Your task to perform on an android device: add a contact Image 0: 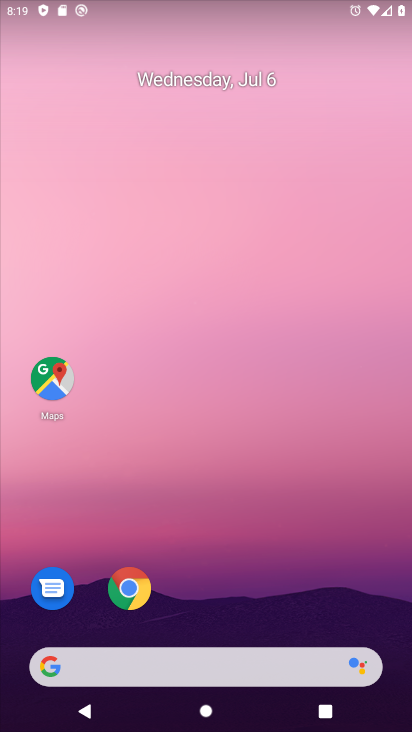
Step 0: drag from (181, 620) to (186, 237)
Your task to perform on an android device: add a contact Image 1: 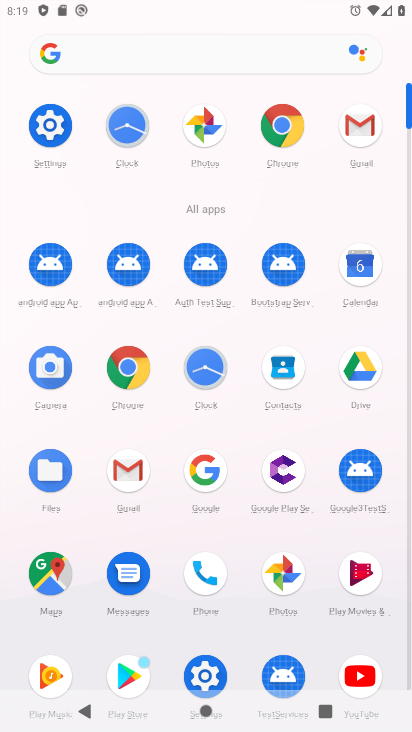
Step 1: click (215, 563)
Your task to perform on an android device: add a contact Image 2: 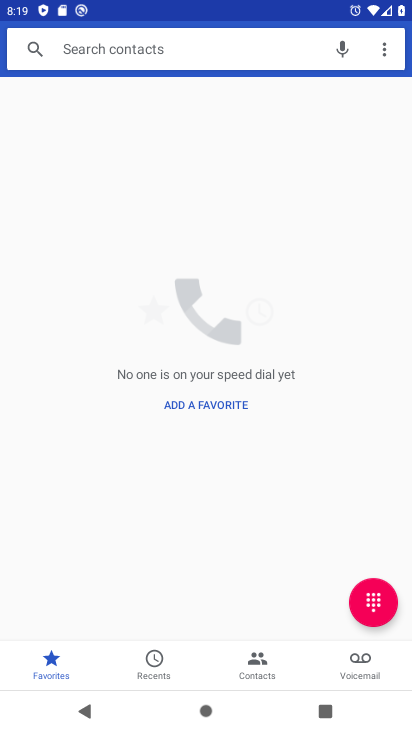
Step 2: click (385, 39)
Your task to perform on an android device: add a contact Image 3: 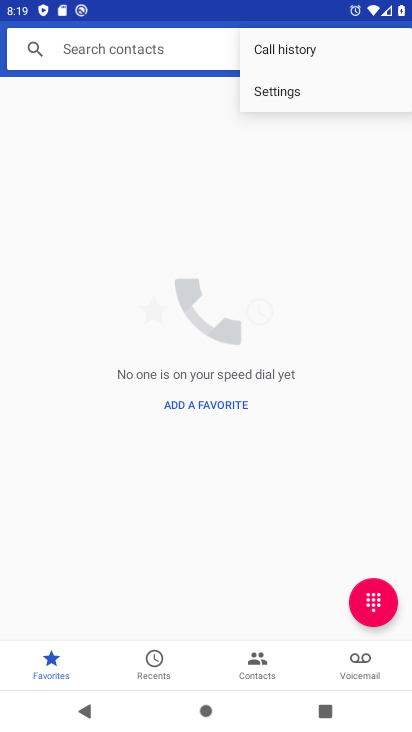
Step 3: click (270, 287)
Your task to perform on an android device: add a contact Image 4: 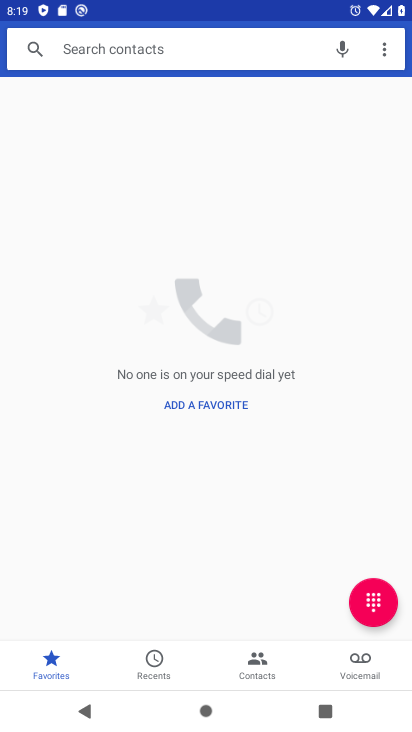
Step 4: click (193, 401)
Your task to perform on an android device: add a contact Image 5: 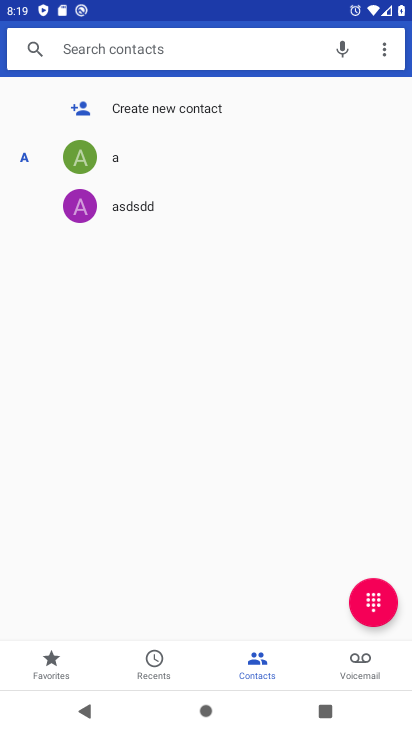
Step 5: click (157, 105)
Your task to perform on an android device: add a contact Image 6: 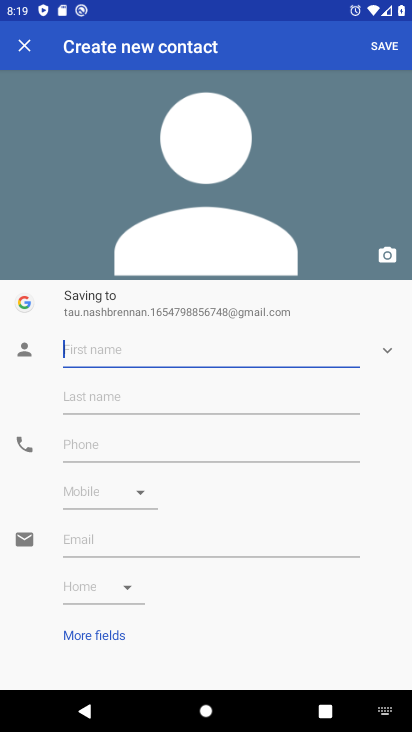
Step 6: click (193, 349)
Your task to perform on an android device: add a contact Image 7: 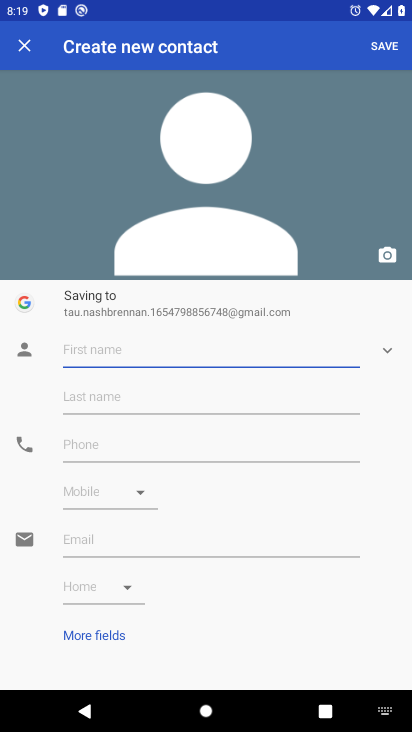
Step 7: type "shaluuuuu "
Your task to perform on an android device: add a contact Image 8: 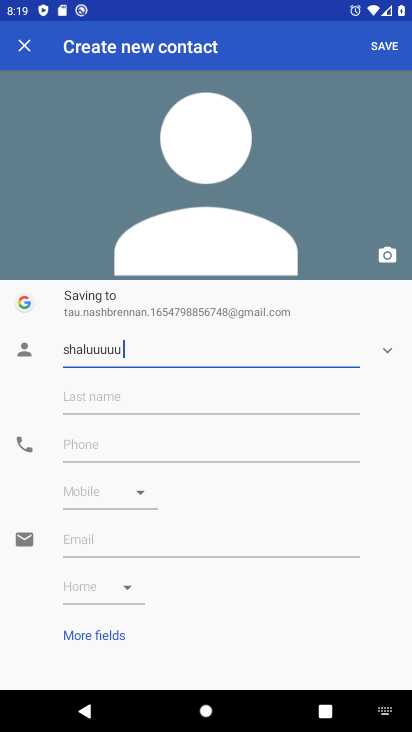
Step 8: click (129, 438)
Your task to perform on an android device: add a contact Image 9: 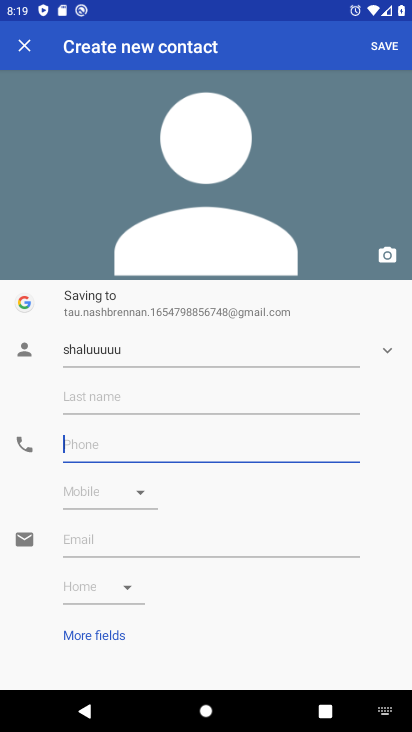
Step 9: type "98999965624132628 "
Your task to perform on an android device: add a contact Image 10: 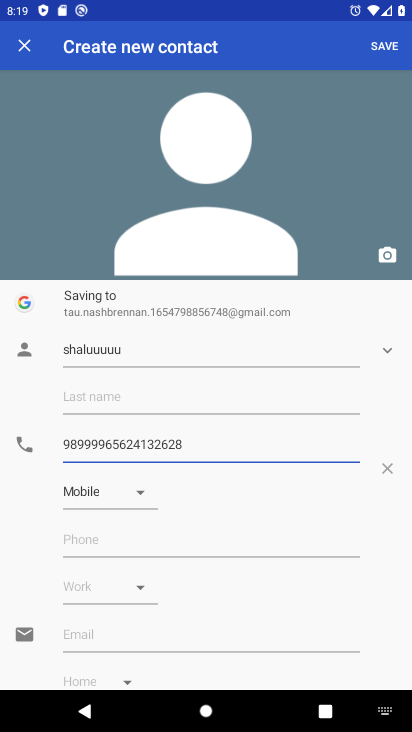
Step 10: click (390, 43)
Your task to perform on an android device: add a contact Image 11: 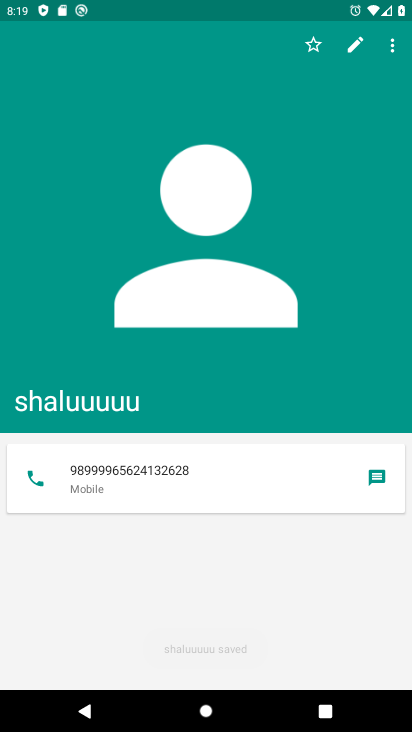
Step 11: task complete